Your task to perform on an android device: turn off smart reply in the gmail app Image 0: 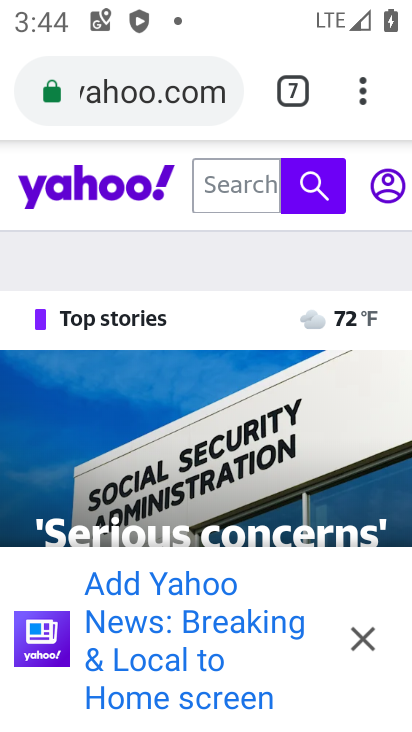
Step 0: press back button
Your task to perform on an android device: turn off smart reply in the gmail app Image 1: 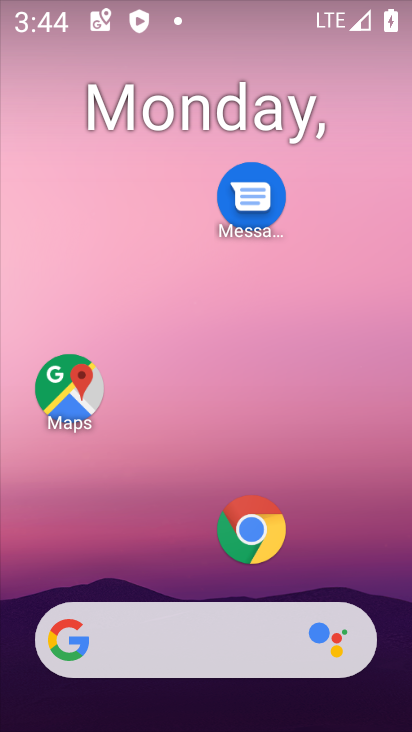
Step 1: drag from (100, 565) to (166, 102)
Your task to perform on an android device: turn off smart reply in the gmail app Image 2: 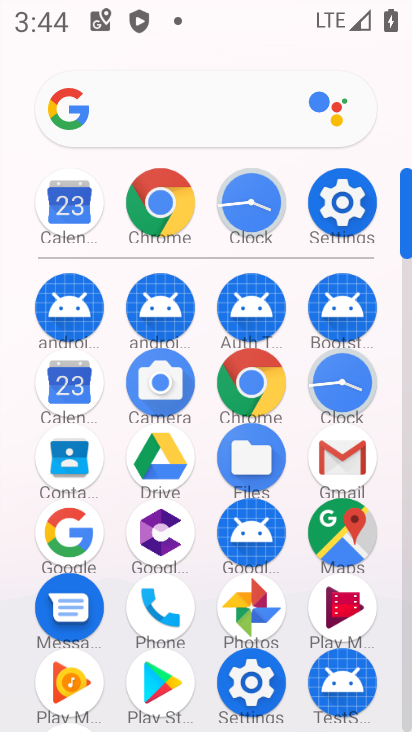
Step 2: click (348, 446)
Your task to perform on an android device: turn off smart reply in the gmail app Image 3: 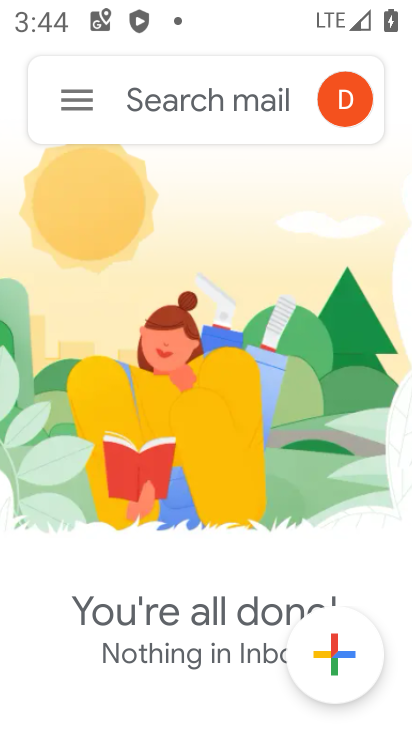
Step 3: click (76, 107)
Your task to perform on an android device: turn off smart reply in the gmail app Image 4: 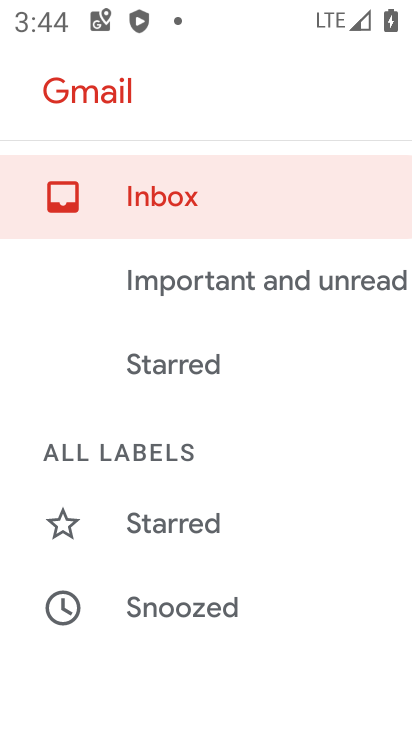
Step 4: drag from (150, 555) to (183, 52)
Your task to perform on an android device: turn off smart reply in the gmail app Image 5: 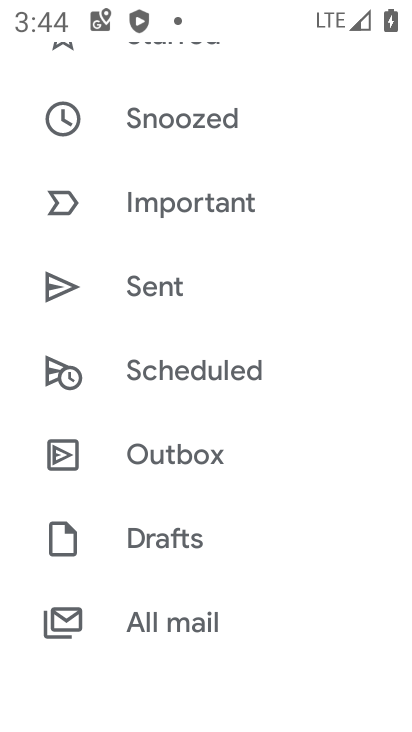
Step 5: drag from (198, 533) to (283, 14)
Your task to perform on an android device: turn off smart reply in the gmail app Image 6: 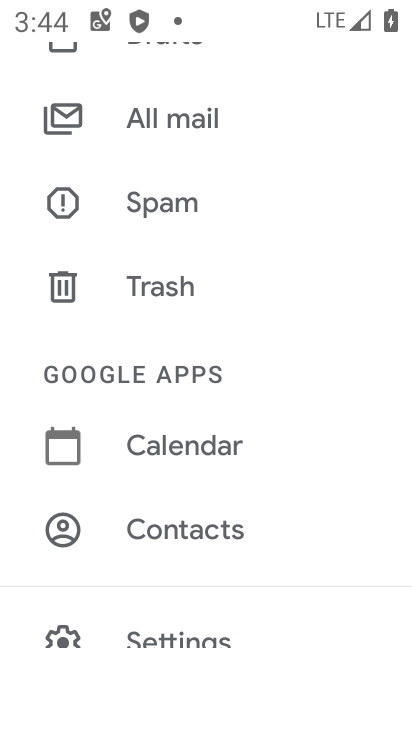
Step 6: click (184, 610)
Your task to perform on an android device: turn off smart reply in the gmail app Image 7: 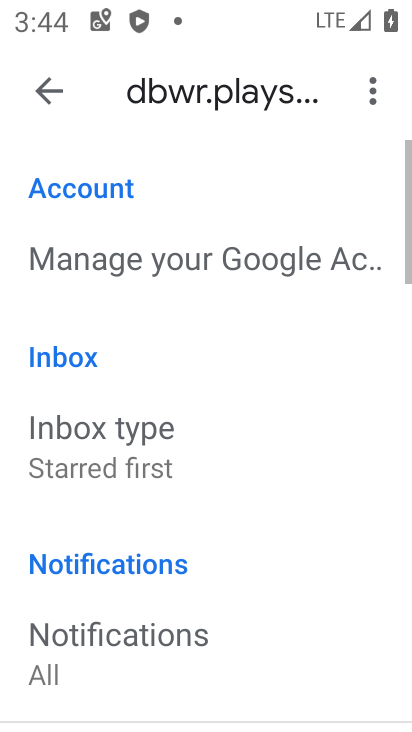
Step 7: drag from (153, 679) to (149, 92)
Your task to perform on an android device: turn off smart reply in the gmail app Image 8: 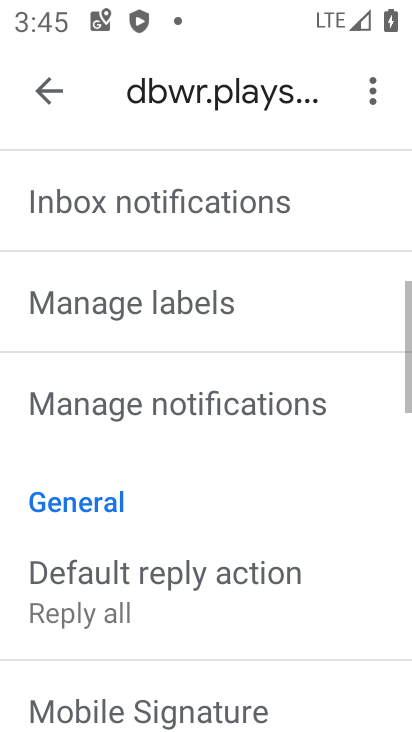
Step 8: drag from (169, 635) to (248, 120)
Your task to perform on an android device: turn off smart reply in the gmail app Image 9: 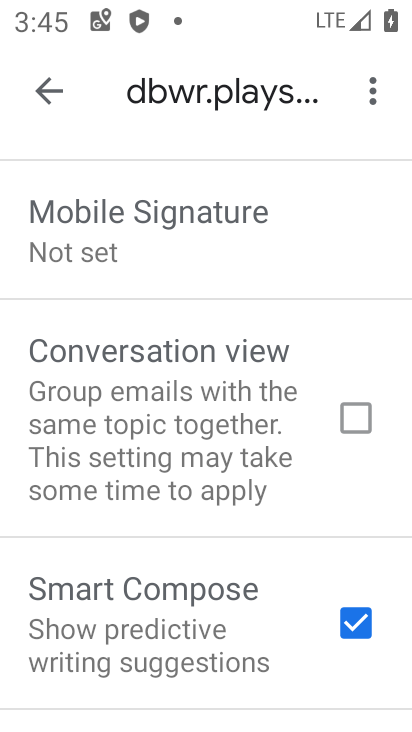
Step 9: drag from (215, 630) to (271, 398)
Your task to perform on an android device: turn off smart reply in the gmail app Image 10: 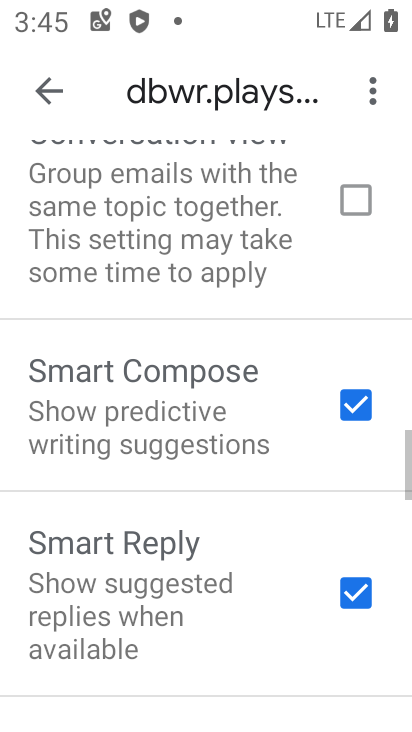
Step 10: click (354, 579)
Your task to perform on an android device: turn off smart reply in the gmail app Image 11: 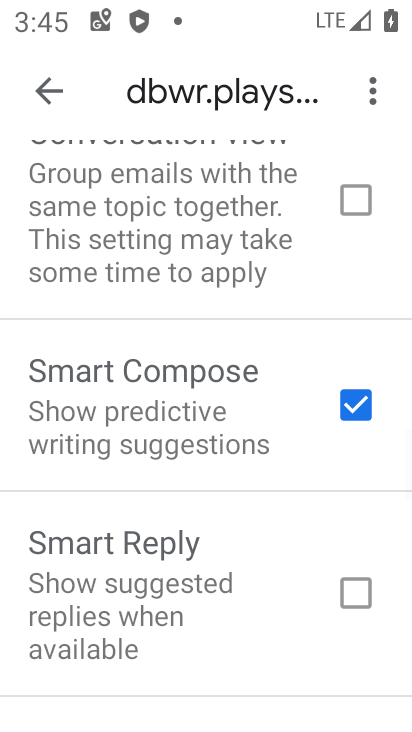
Step 11: task complete